Your task to perform on an android device: turn on bluetooth scan Image 0: 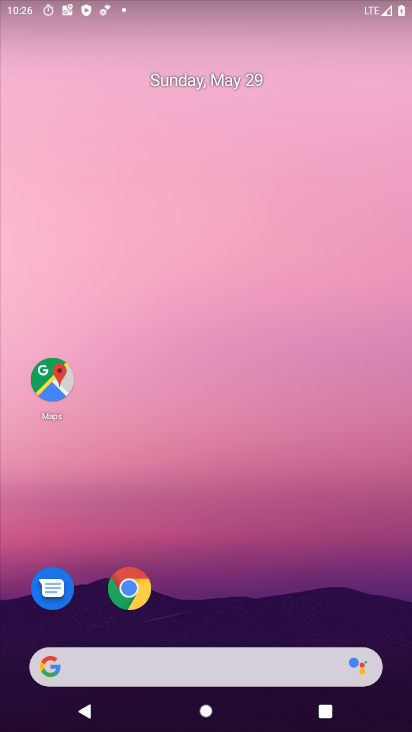
Step 0: drag from (287, 576) to (247, 1)
Your task to perform on an android device: turn on bluetooth scan Image 1: 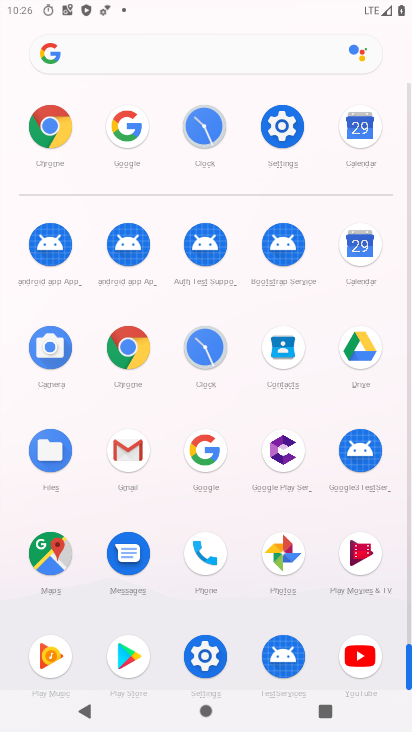
Step 1: click (194, 643)
Your task to perform on an android device: turn on bluetooth scan Image 2: 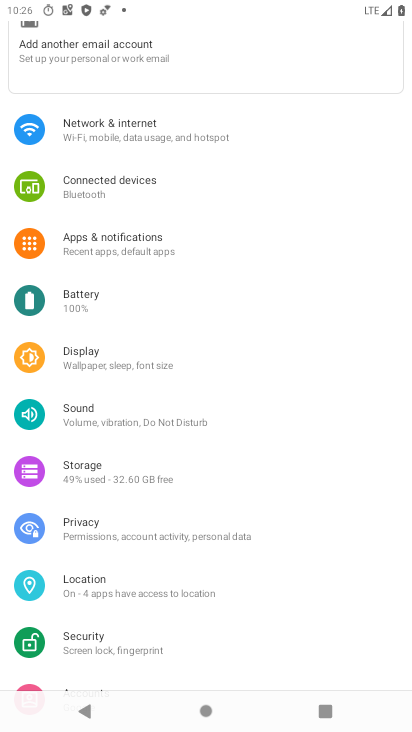
Step 2: click (160, 596)
Your task to perform on an android device: turn on bluetooth scan Image 3: 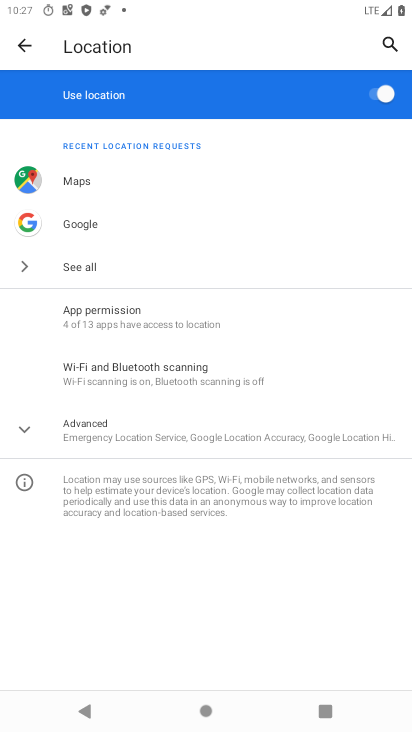
Step 3: click (148, 443)
Your task to perform on an android device: turn on bluetooth scan Image 4: 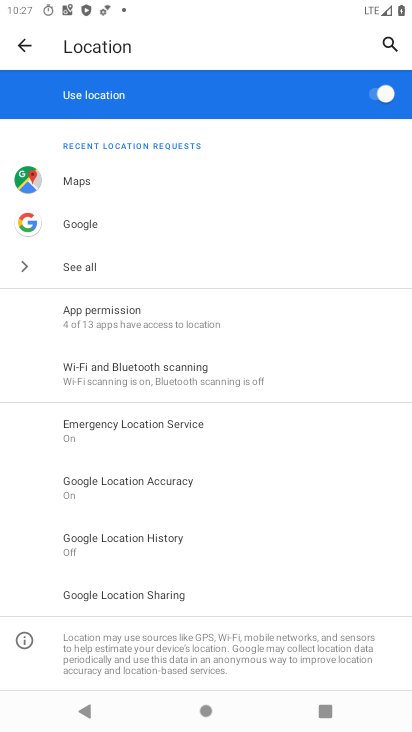
Step 4: click (174, 374)
Your task to perform on an android device: turn on bluetooth scan Image 5: 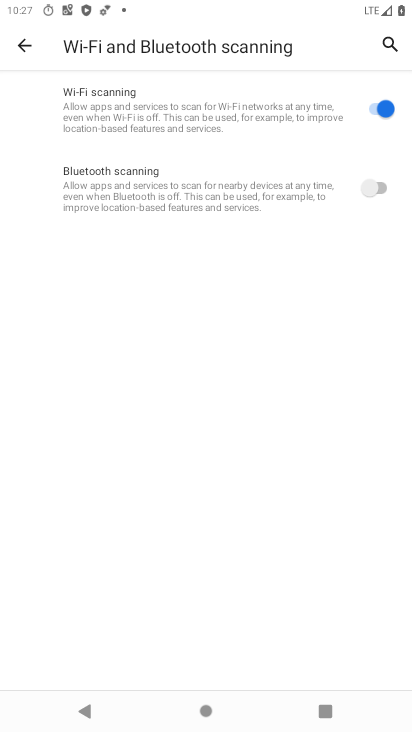
Step 5: click (373, 190)
Your task to perform on an android device: turn on bluetooth scan Image 6: 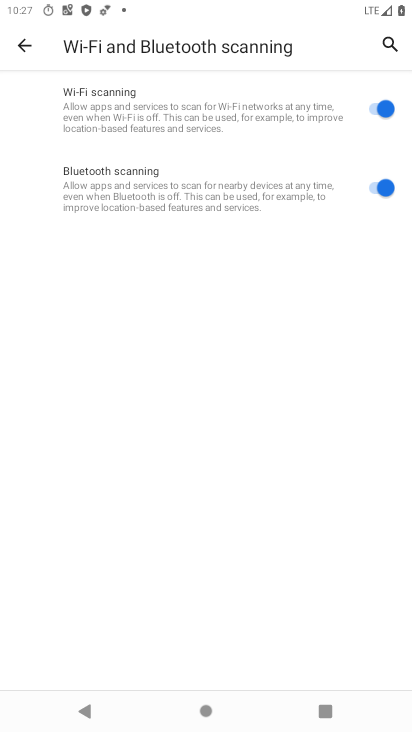
Step 6: task complete